Your task to perform on an android device: turn on data saver in the chrome app Image 0: 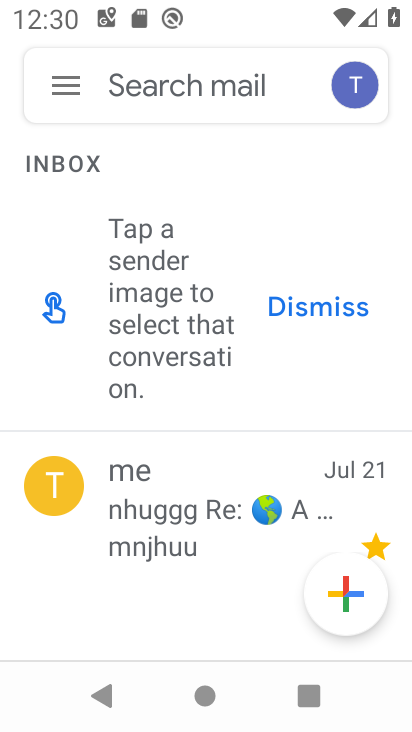
Step 0: press home button
Your task to perform on an android device: turn on data saver in the chrome app Image 1: 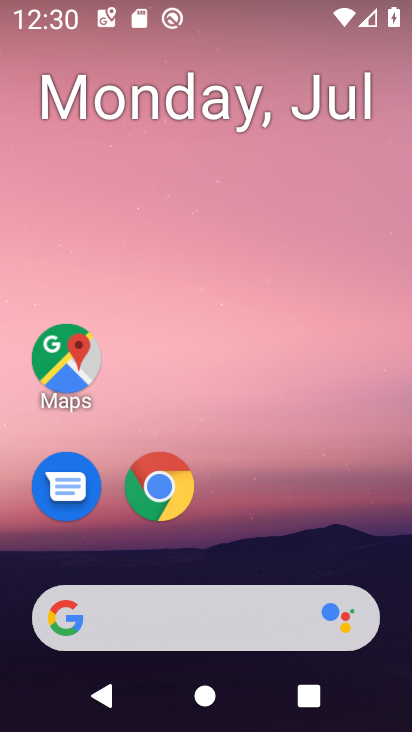
Step 1: drag from (354, 523) to (322, 101)
Your task to perform on an android device: turn on data saver in the chrome app Image 2: 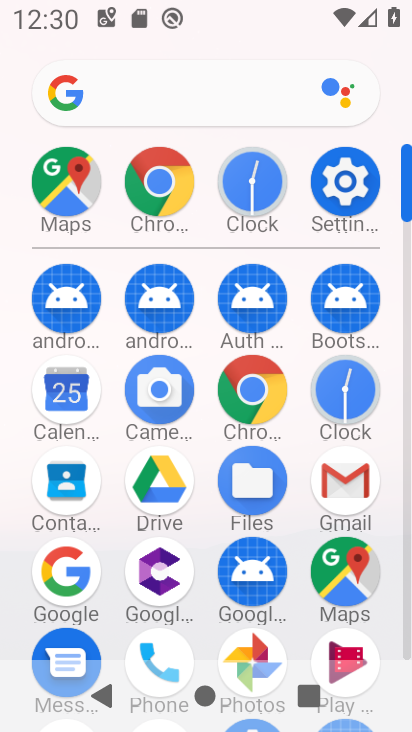
Step 2: click (252, 387)
Your task to perform on an android device: turn on data saver in the chrome app Image 3: 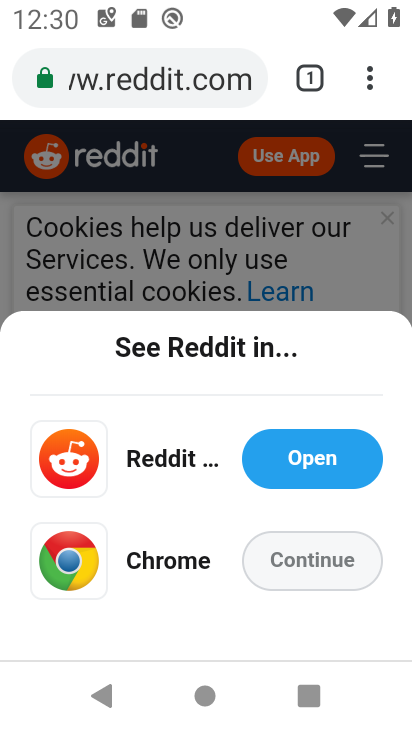
Step 3: click (366, 85)
Your task to perform on an android device: turn on data saver in the chrome app Image 4: 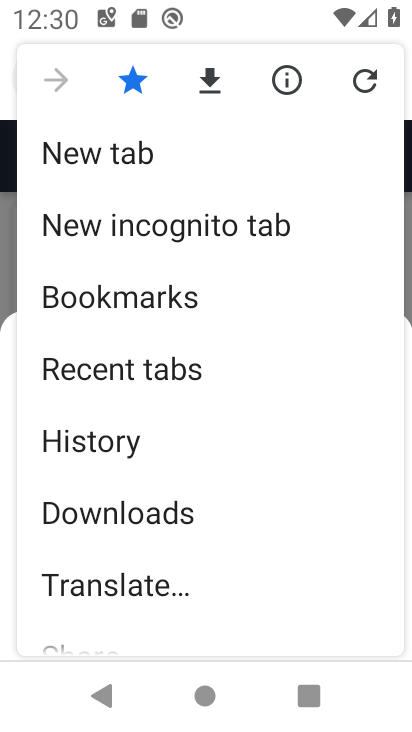
Step 4: drag from (308, 392) to (318, 296)
Your task to perform on an android device: turn on data saver in the chrome app Image 5: 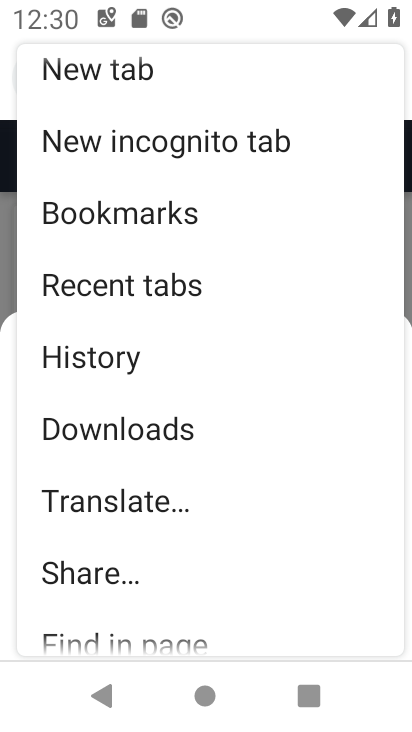
Step 5: drag from (290, 465) to (289, 343)
Your task to perform on an android device: turn on data saver in the chrome app Image 6: 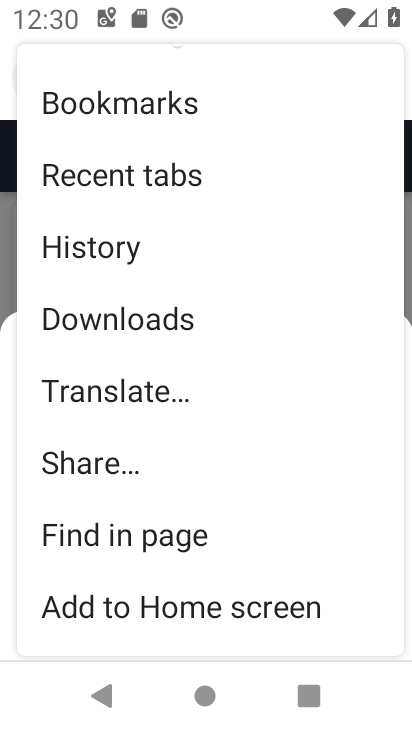
Step 6: drag from (283, 481) to (287, 362)
Your task to perform on an android device: turn on data saver in the chrome app Image 7: 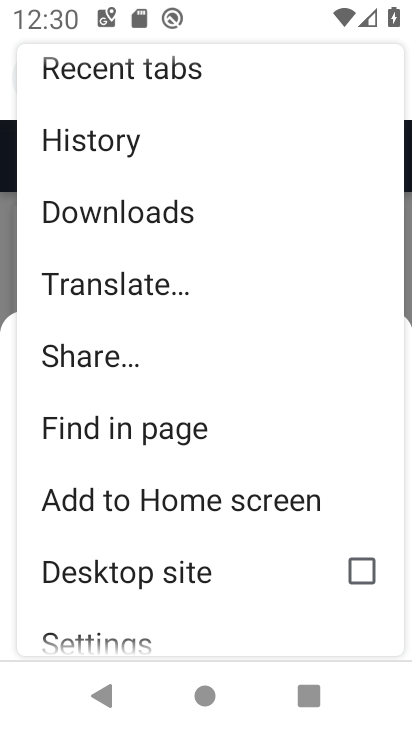
Step 7: drag from (272, 555) to (266, 373)
Your task to perform on an android device: turn on data saver in the chrome app Image 8: 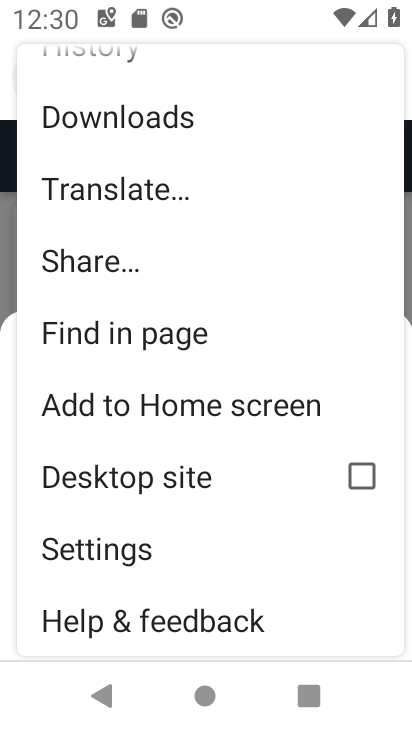
Step 8: click (185, 552)
Your task to perform on an android device: turn on data saver in the chrome app Image 9: 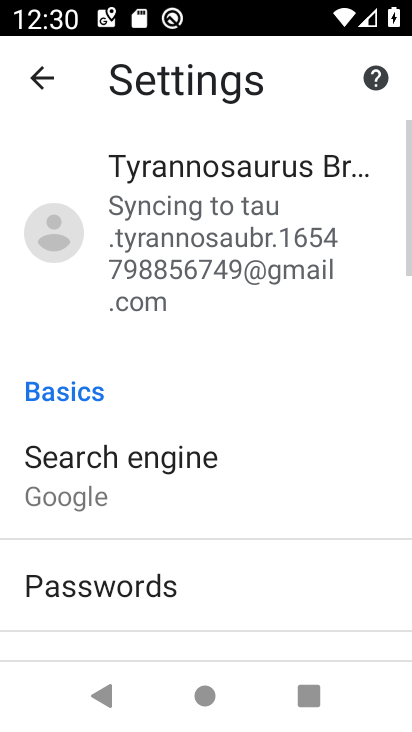
Step 9: drag from (276, 543) to (278, 423)
Your task to perform on an android device: turn on data saver in the chrome app Image 10: 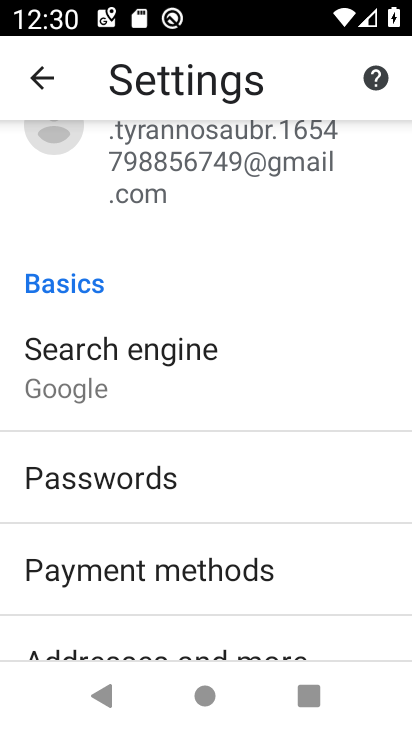
Step 10: drag from (305, 562) to (306, 414)
Your task to perform on an android device: turn on data saver in the chrome app Image 11: 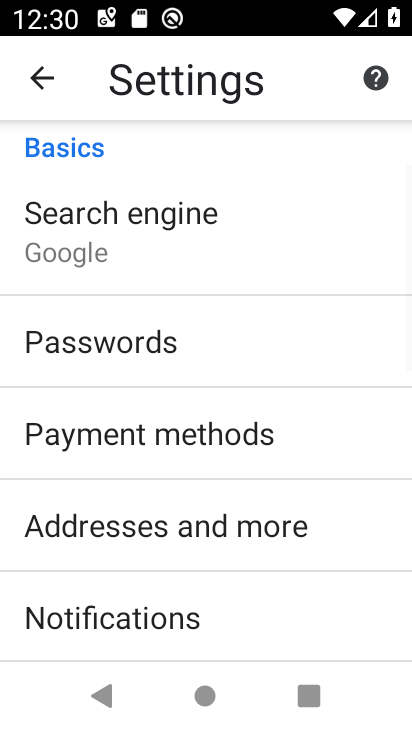
Step 11: drag from (293, 572) to (294, 461)
Your task to perform on an android device: turn on data saver in the chrome app Image 12: 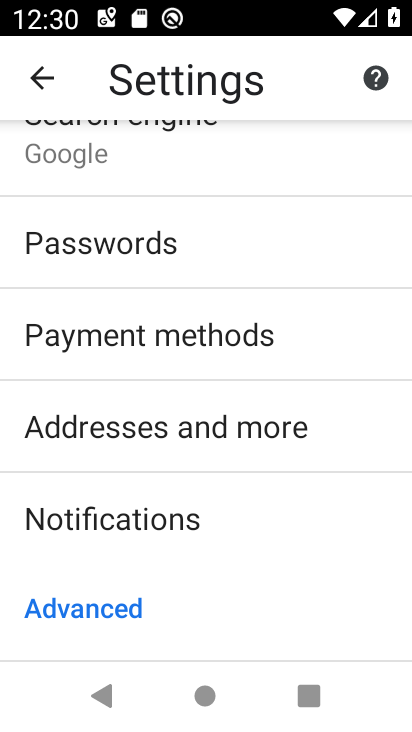
Step 12: drag from (294, 556) to (293, 430)
Your task to perform on an android device: turn on data saver in the chrome app Image 13: 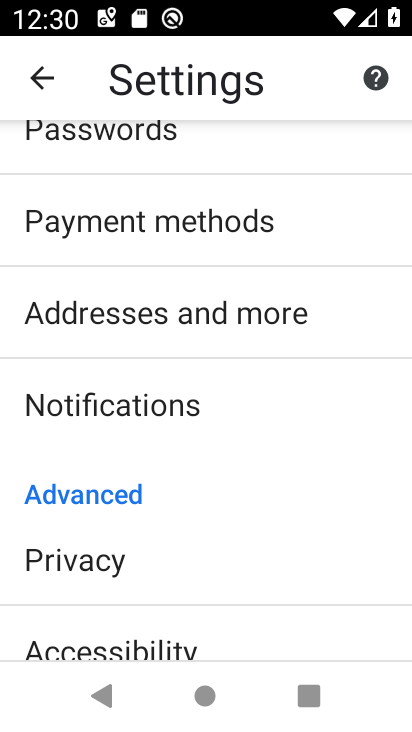
Step 13: drag from (276, 564) to (277, 455)
Your task to perform on an android device: turn on data saver in the chrome app Image 14: 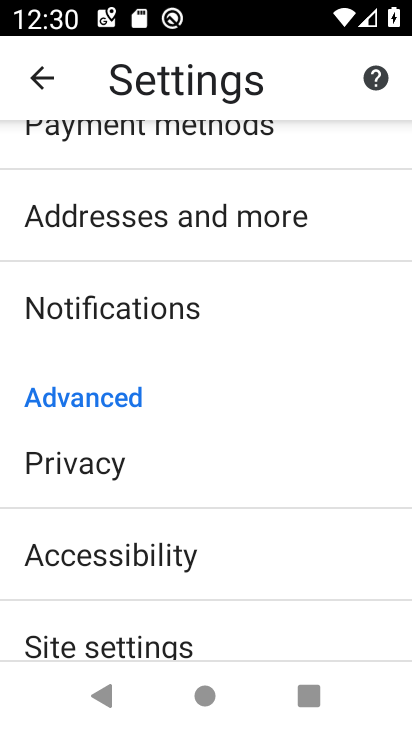
Step 14: drag from (292, 558) to (300, 473)
Your task to perform on an android device: turn on data saver in the chrome app Image 15: 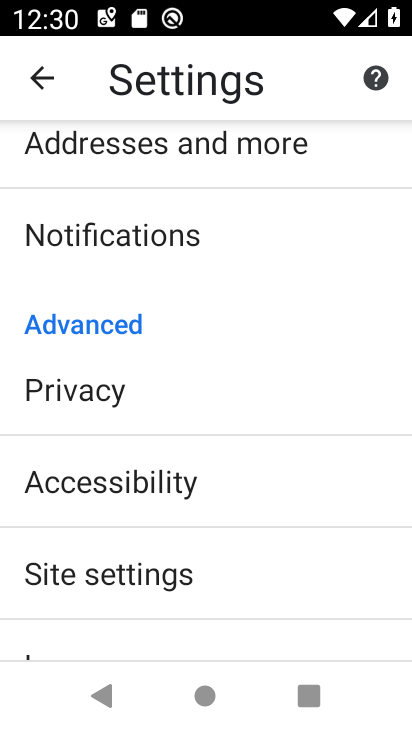
Step 15: drag from (300, 577) to (303, 436)
Your task to perform on an android device: turn on data saver in the chrome app Image 16: 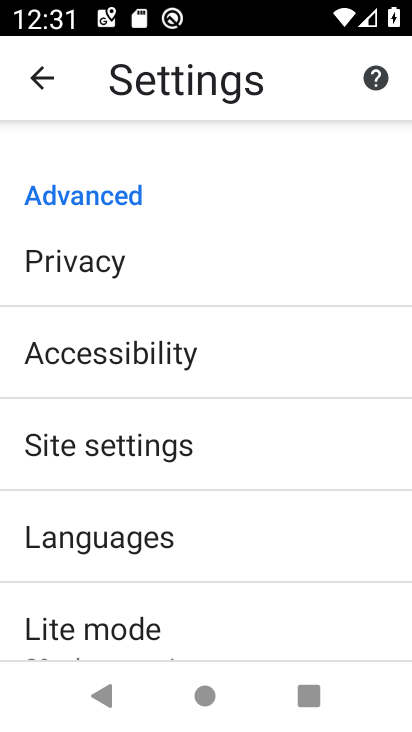
Step 16: drag from (287, 592) to (304, 361)
Your task to perform on an android device: turn on data saver in the chrome app Image 17: 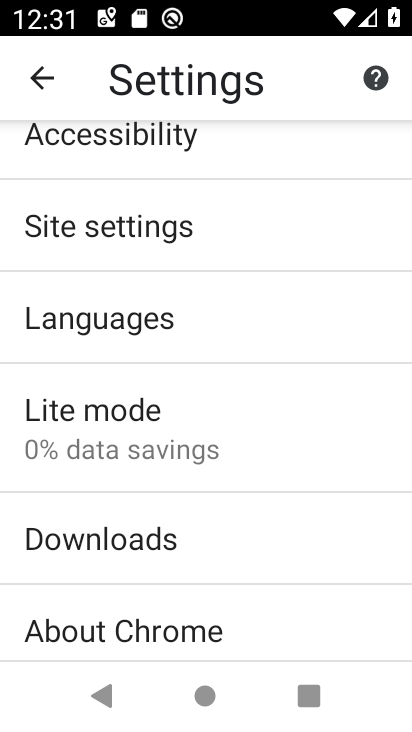
Step 17: click (300, 461)
Your task to perform on an android device: turn on data saver in the chrome app Image 18: 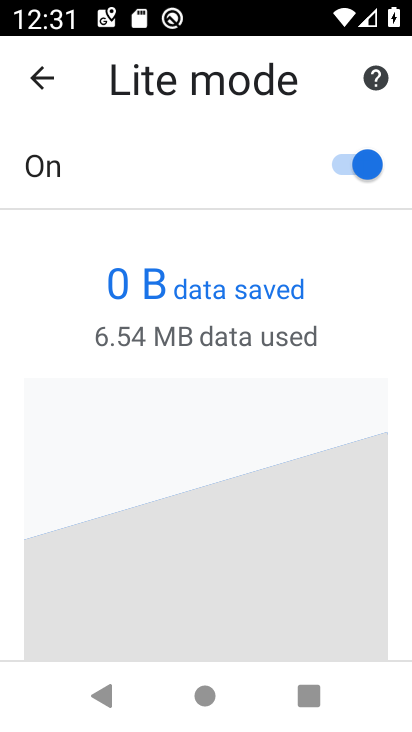
Step 18: task complete